Your task to perform on an android device: turn on sleep mode Image 0: 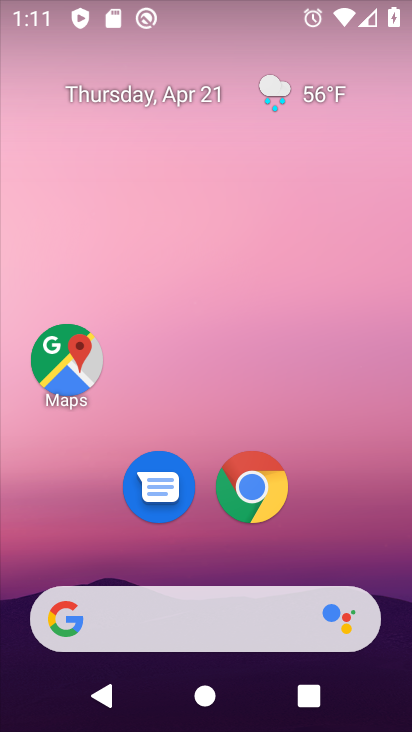
Step 0: drag from (338, 460) to (249, 90)
Your task to perform on an android device: turn on sleep mode Image 1: 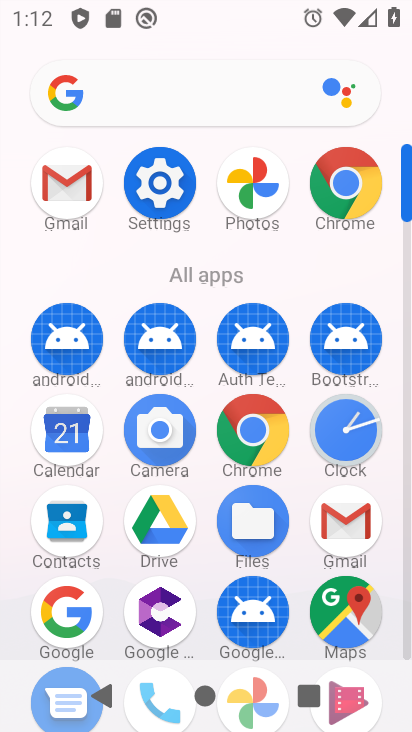
Step 1: click (155, 183)
Your task to perform on an android device: turn on sleep mode Image 2: 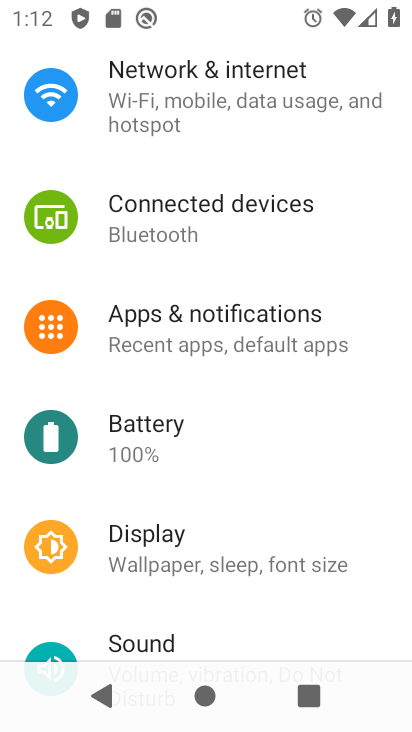
Step 2: click (205, 564)
Your task to perform on an android device: turn on sleep mode Image 3: 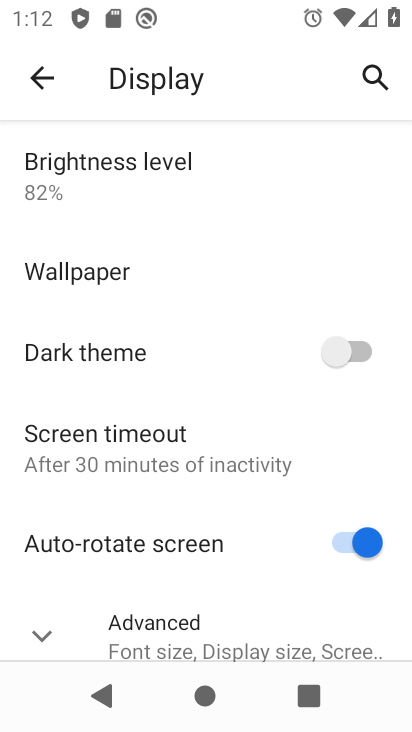
Step 3: click (155, 621)
Your task to perform on an android device: turn on sleep mode Image 4: 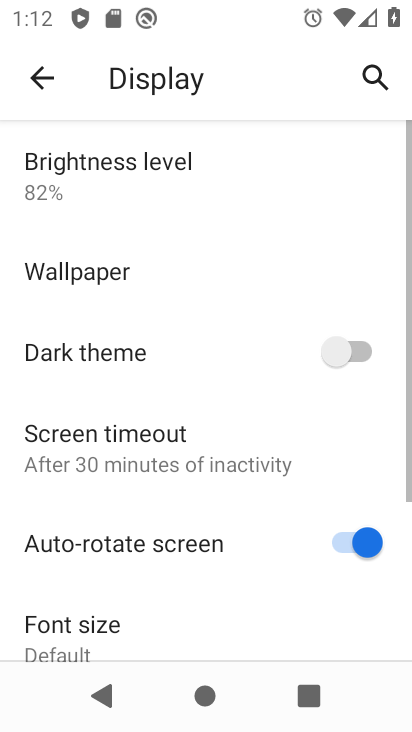
Step 4: task complete